Your task to perform on an android device: install app "Expedia: Hotels, Flights & Car" Image 0: 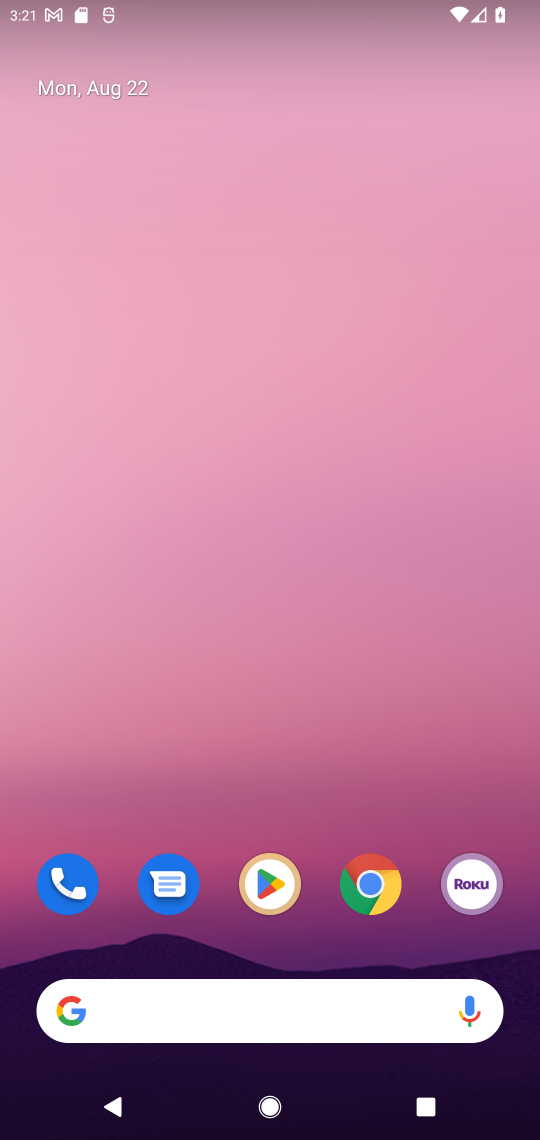
Step 0: click (264, 881)
Your task to perform on an android device: install app "Expedia: Hotels, Flights & Car" Image 1: 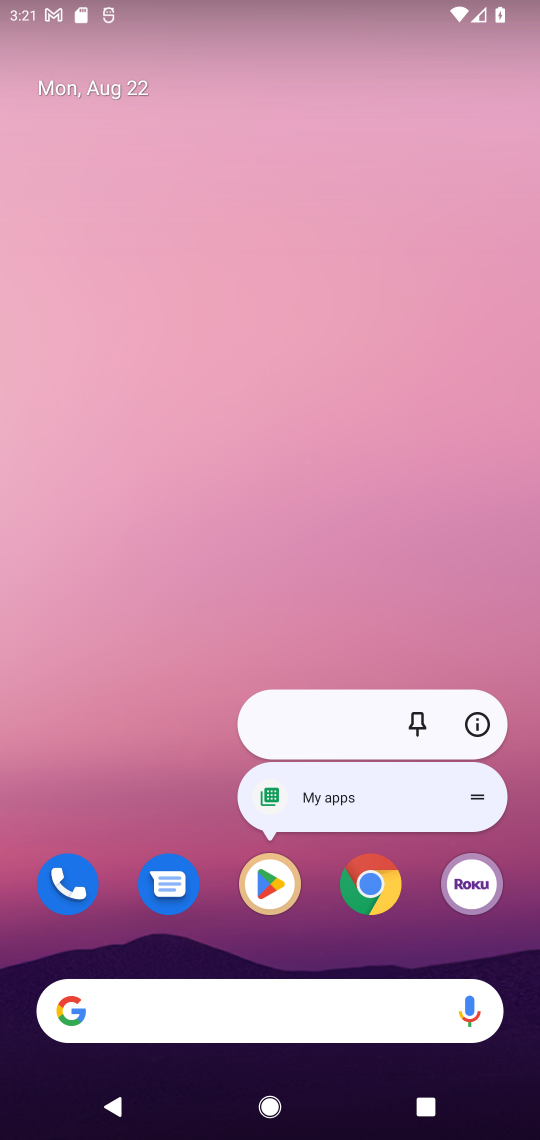
Step 1: click (267, 882)
Your task to perform on an android device: install app "Expedia: Hotels, Flights & Car" Image 2: 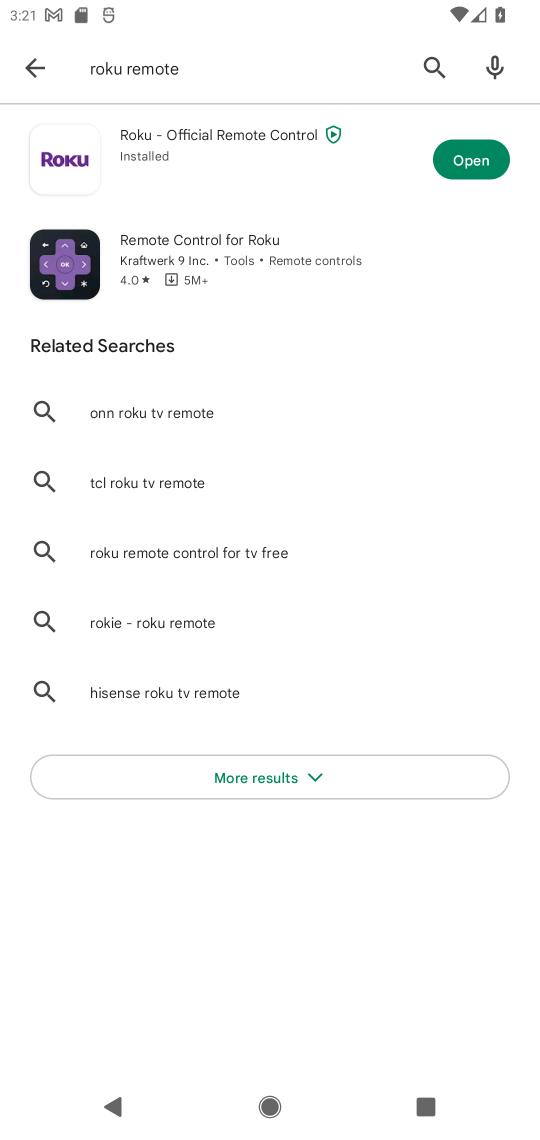
Step 2: click (141, 71)
Your task to perform on an android device: install app "Expedia: Hotels, Flights & Car" Image 3: 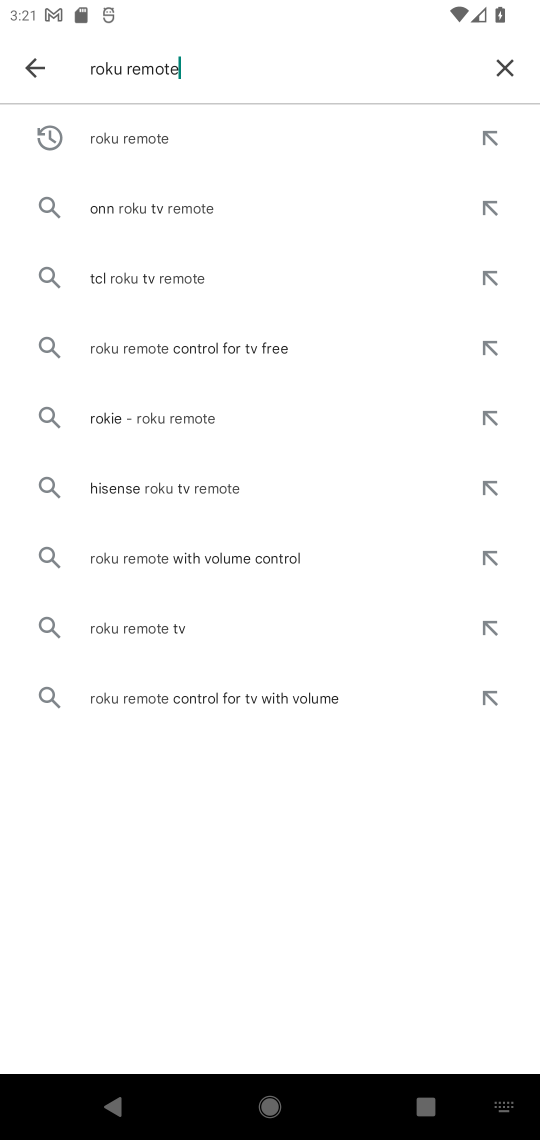
Step 3: click (493, 56)
Your task to perform on an android device: install app "Expedia: Hotels, Flights & Car" Image 4: 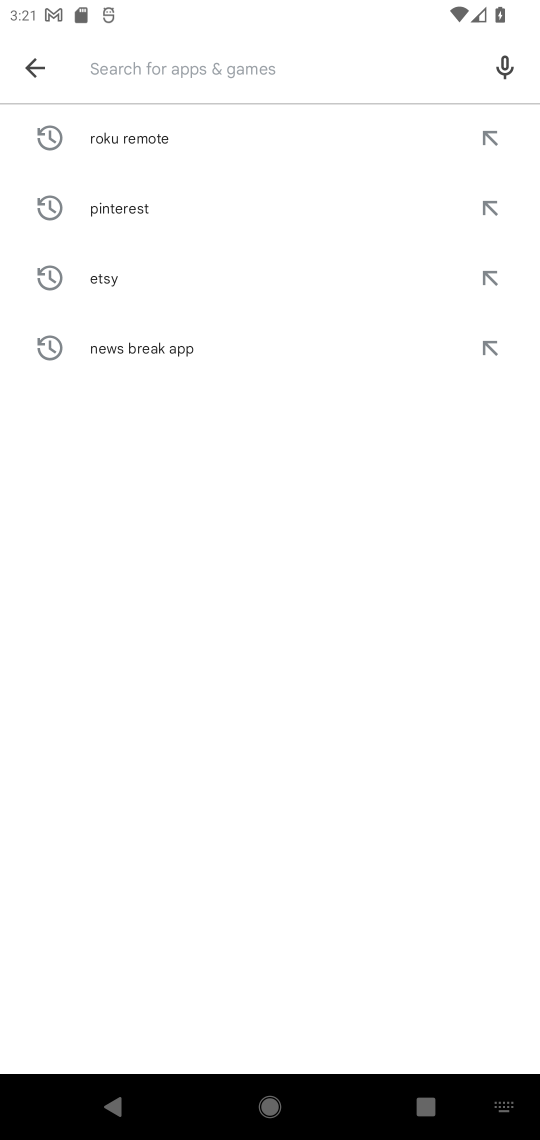
Step 4: type "Expedia"
Your task to perform on an android device: install app "Expedia: Hotels, Flights & Car" Image 5: 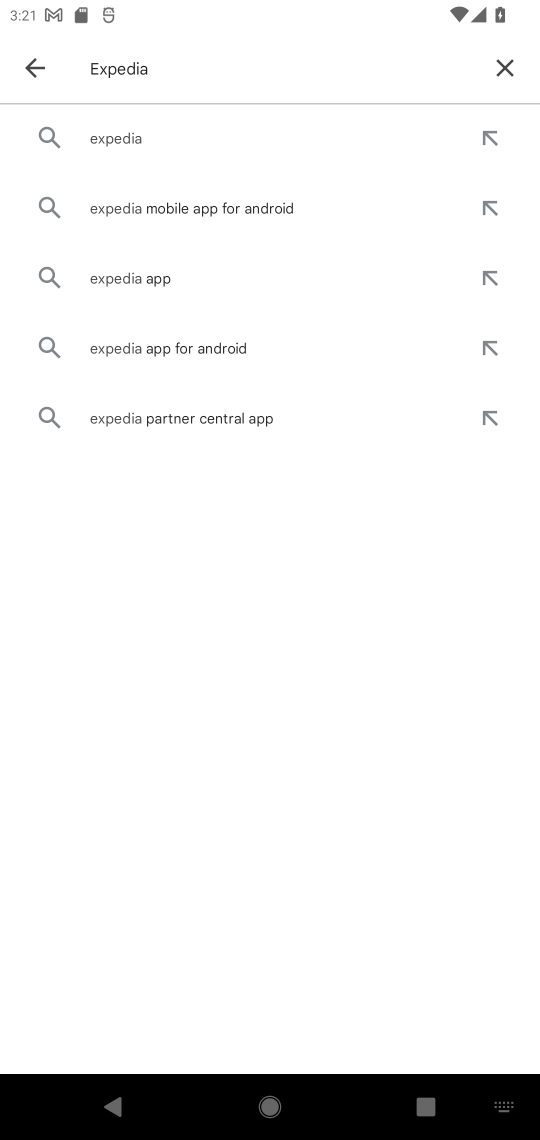
Step 5: click (154, 137)
Your task to perform on an android device: install app "Expedia: Hotels, Flights & Car" Image 6: 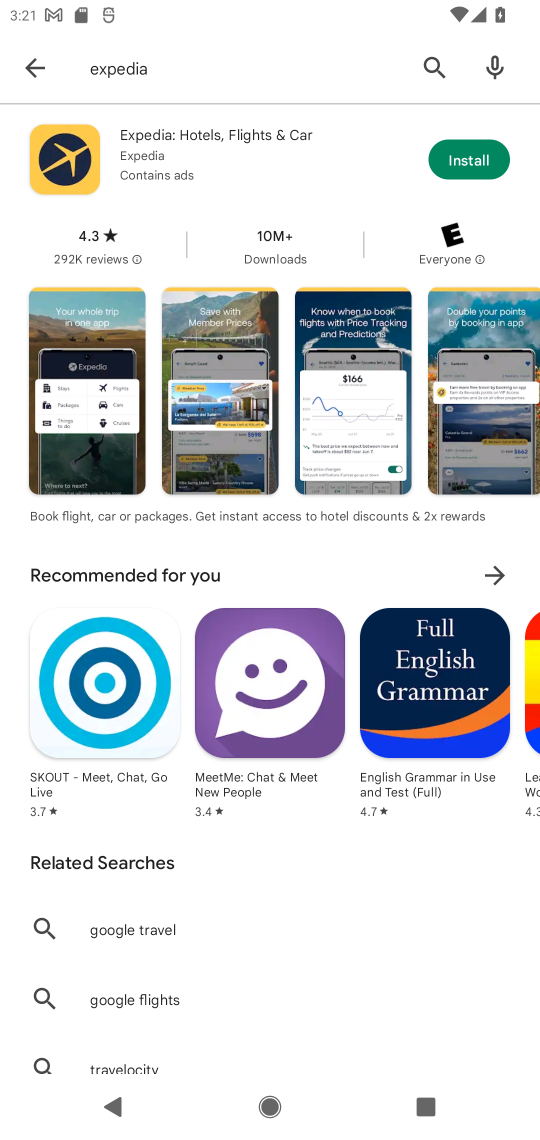
Step 6: click (463, 152)
Your task to perform on an android device: install app "Expedia: Hotels, Flights & Car" Image 7: 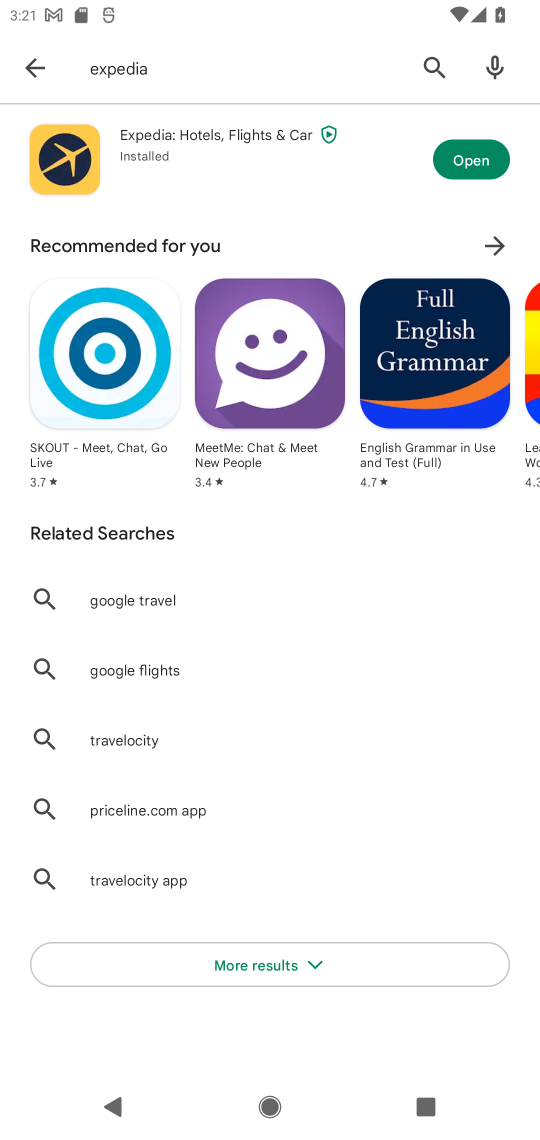
Step 7: task complete